Your task to perform on an android device: set the timer Image 0: 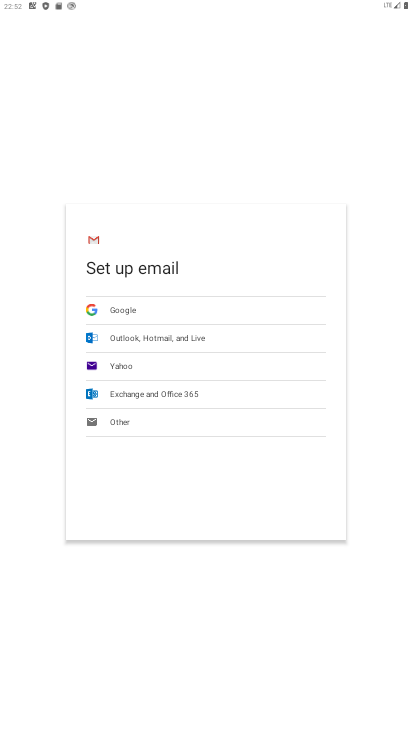
Step 0: click (223, 244)
Your task to perform on an android device: set the timer Image 1: 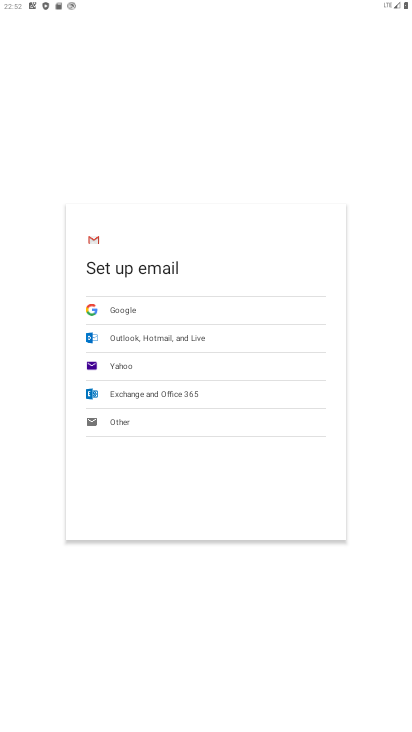
Step 1: press home button
Your task to perform on an android device: set the timer Image 2: 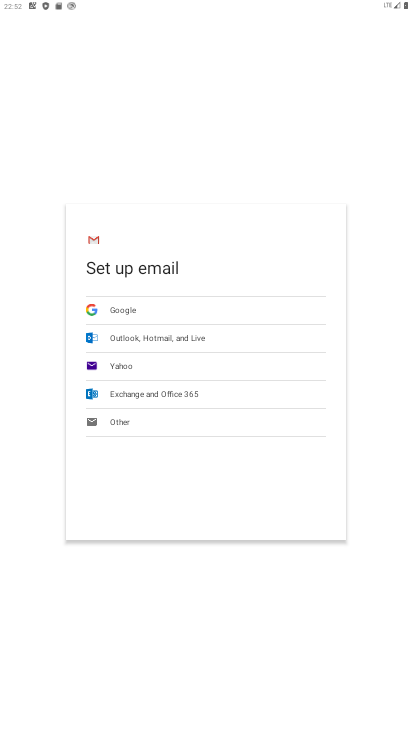
Step 2: press home button
Your task to perform on an android device: set the timer Image 3: 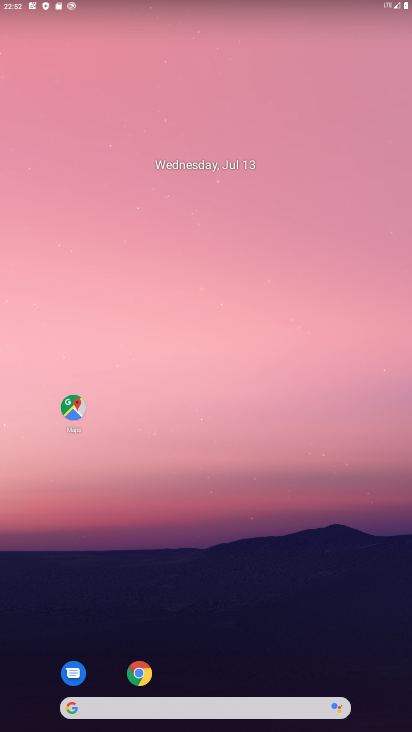
Step 3: drag from (229, 598) to (228, 178)
Your task to perform on an android device: set the timer Image 4: 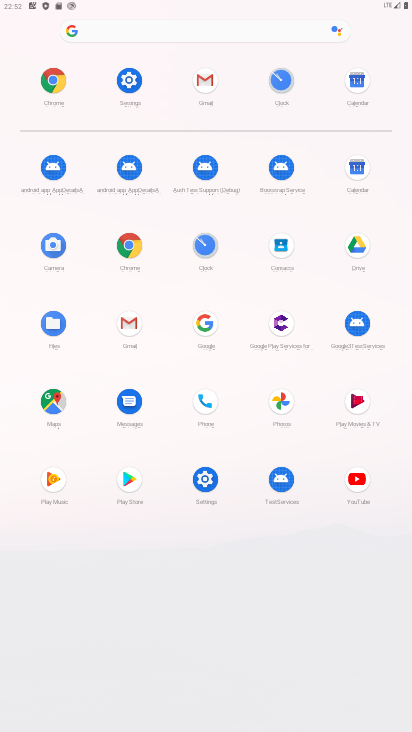
Step 4: click (197, 242)
Your task to perform on an android device: set the timer Image 5: 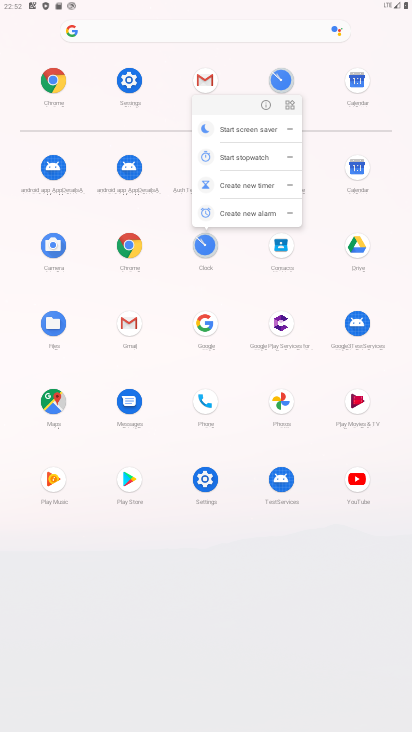
Step 5: click (261, 102)
Your task to perform on an android device: set the timer Image 6: 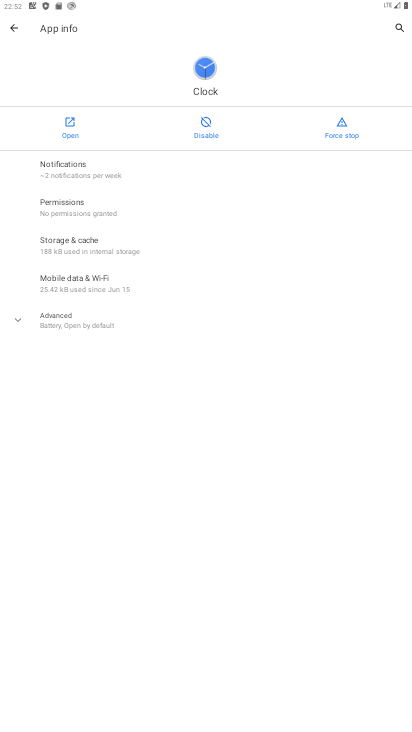
Step 6: click (67, 123)
Your task to perform on an android device: set the timer Image 7: 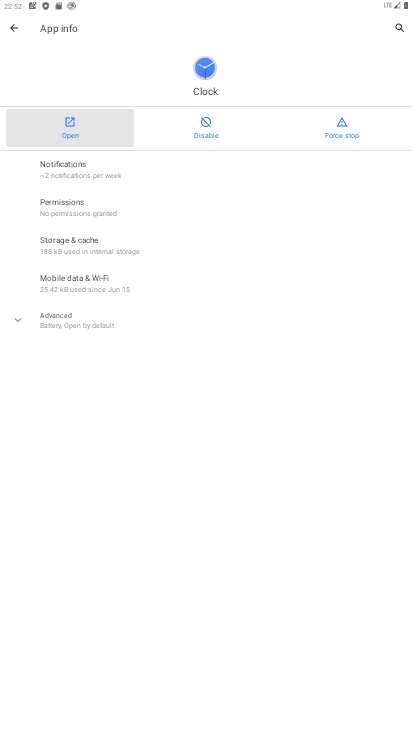
Step 7: click (67, 123)
Your task to perform on an android device: set the timer Image 8: 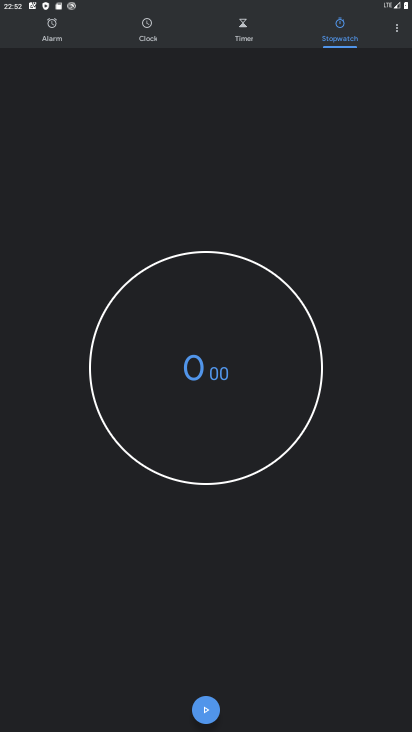
Step 8: drag from (221, 546) to (192, 113)
Your task to perform on an android device: set the timer Image 9: 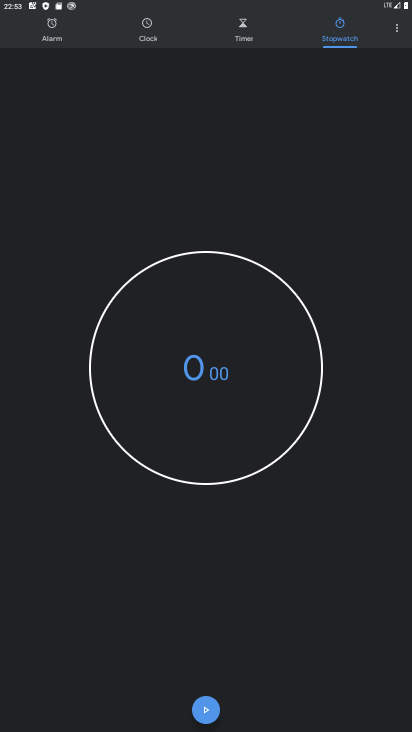
Step 9: drag from (219, 593) to (214, 325)
Your task to perform on an android device: set the timer Image 10: 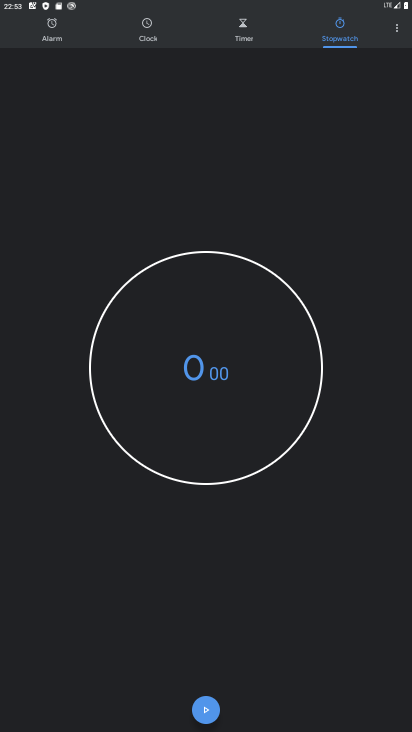
Step 10: click (243, 36)
Your task to perform on an android device: set the timer Image 11: 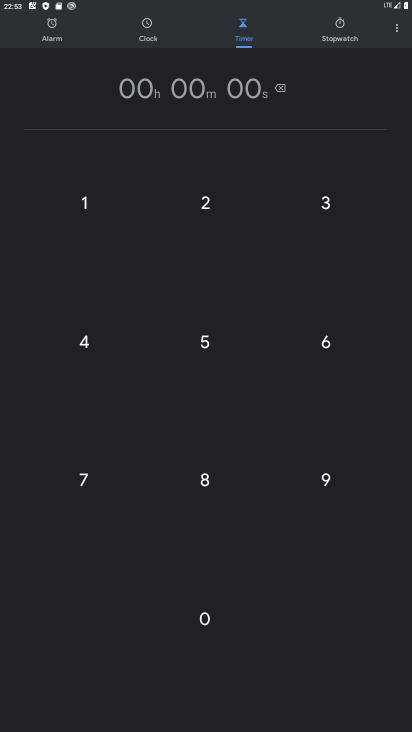
Step 11: click (197, 365)
Your task to perform on an android device: set the timer Image 12: 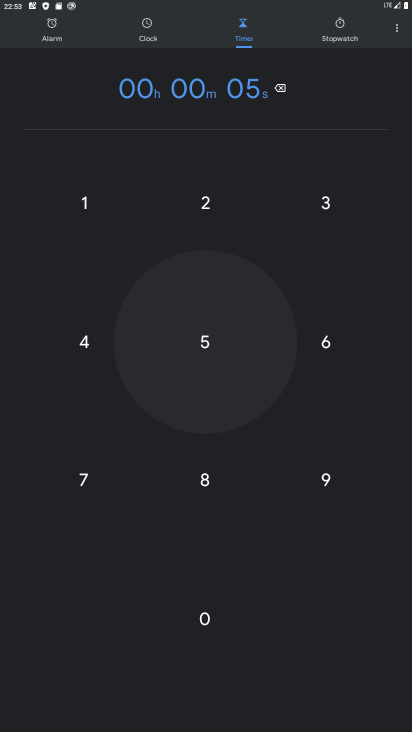
Step 12: click (366, 341)
Your task to perform on an android device: set the timer Image 13: 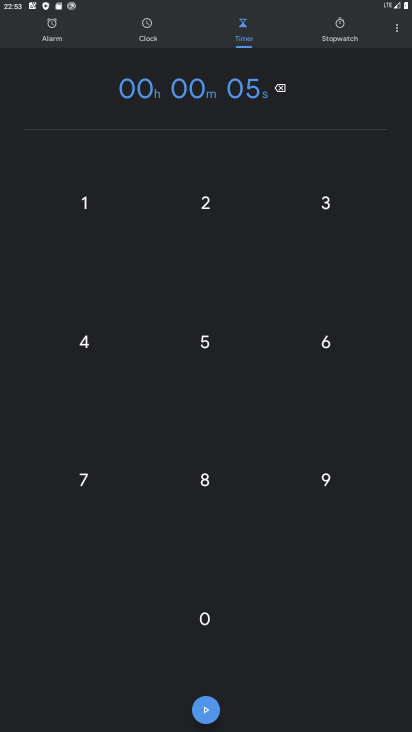
Step 13: click (327, 340)
Your task to perform on an android device: set the timer Image 14: 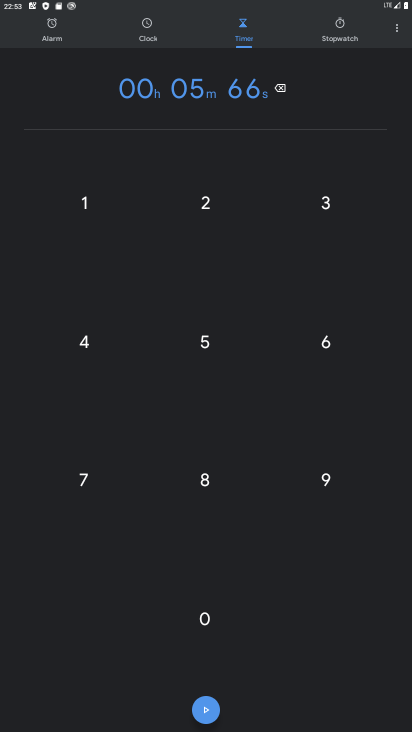
Step 14: click (209, 717)
Your task to perform on an android device: set the timer Image 15: 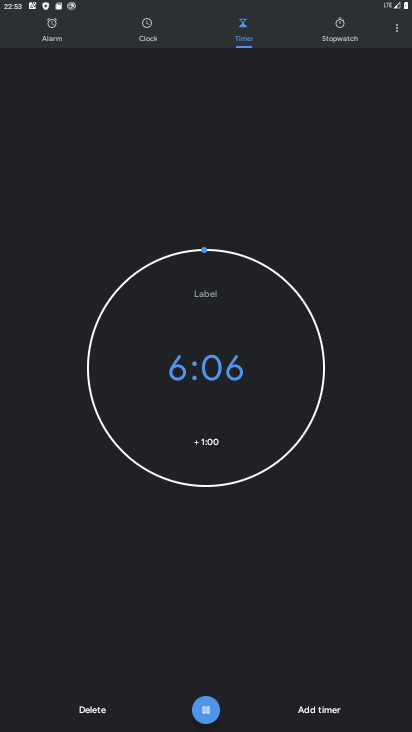
Step 15: task complete